Your task to perform on an android device: turn on sleep mode Image 0: 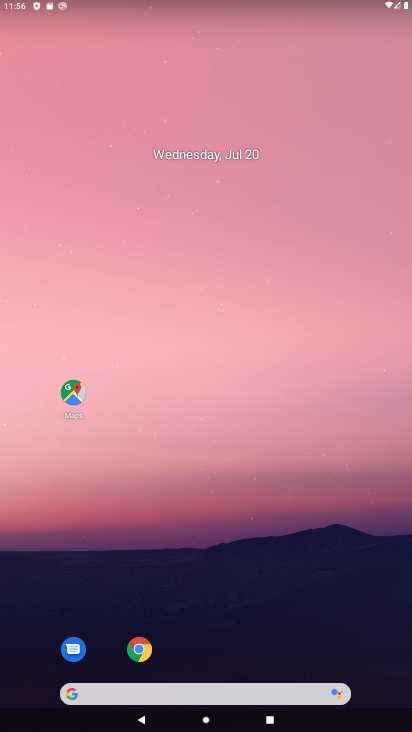
Step 0: drag from (299, 657) to (342, 136)
Your task to perform on an android device: turn on sleep mode Image 1: 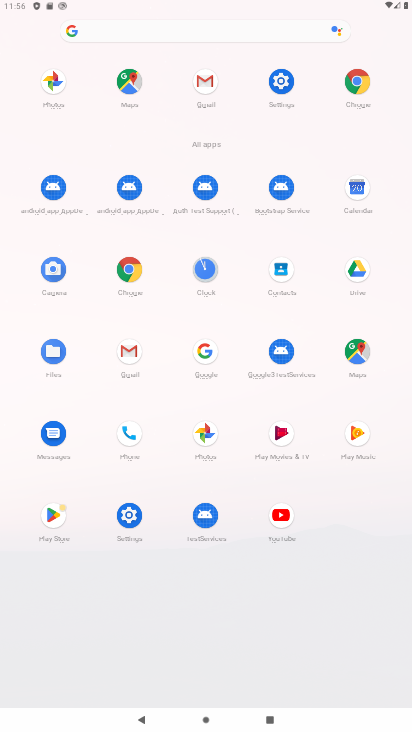
Step 1: task complete